Your task to perform on an android device: toggle improve location accuracy Image 0: 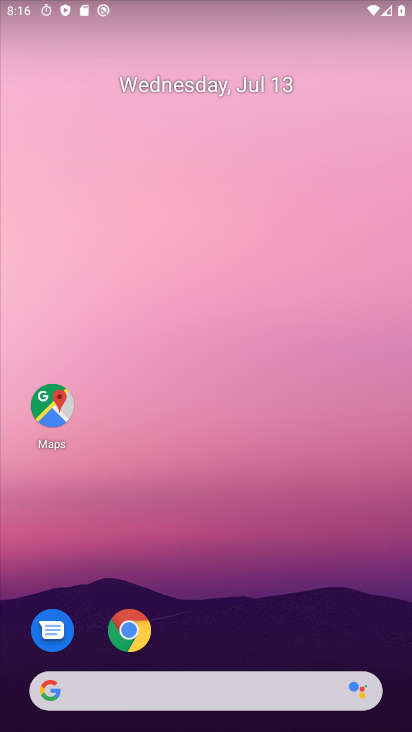
Step 0: drag from (176, 642) to (233, 135)
Your task to perform on an android device: toggle improve location accuracy Image 1: 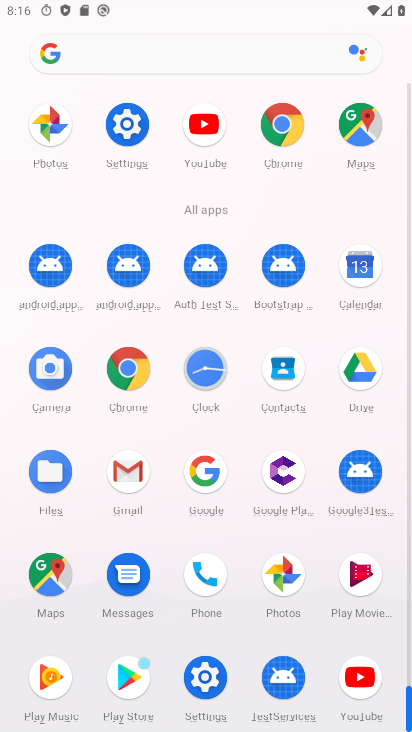
Step 1: click (208, 678)
Your task to perform on an android device: toggle improve location accuracy Image 2: 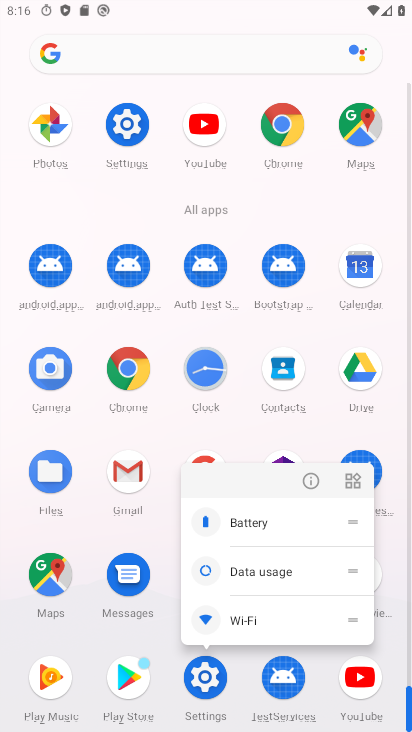
Step 2: click (311, 479)
Your task to perform on an android device: toggle improve location accuracy Image 3: 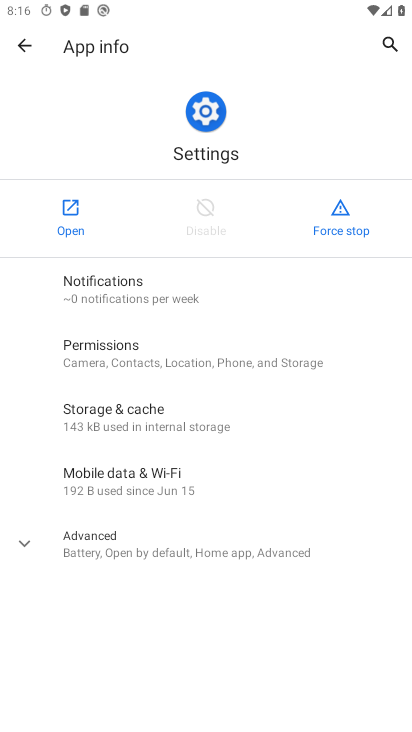
Step 3: click (66, 209)
Your task to perform on an android device: toggle improve location accuracy Image 4: 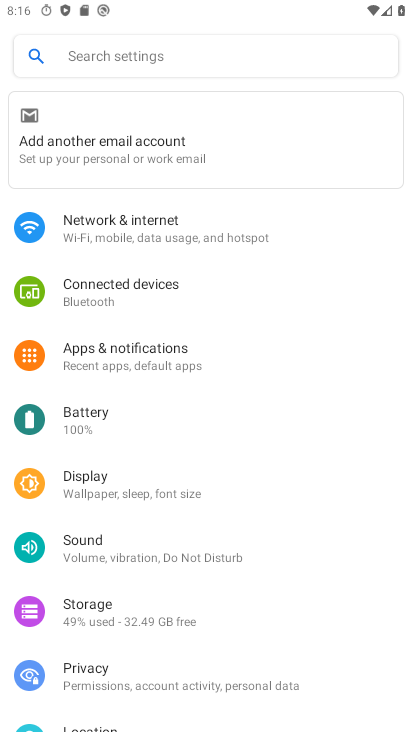
Step 4: drag from (179, 664) to (249, 348)
Your task to perform on an android device: toggle improve location accuracy Image 5: 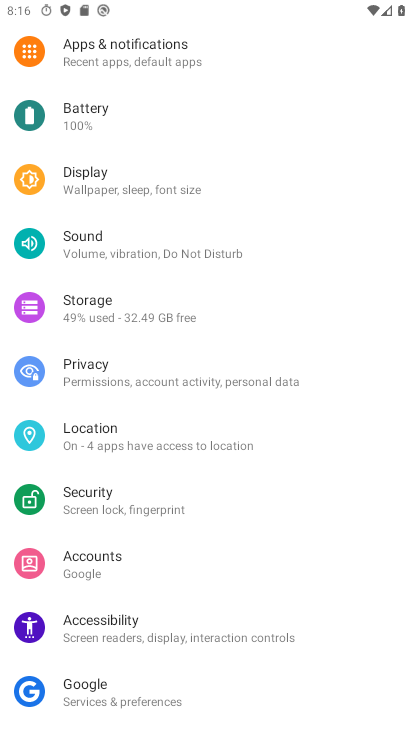
Step 5: click (115, 432)
Your task to perform on an android device: toggle improve location accuracy Image 6: 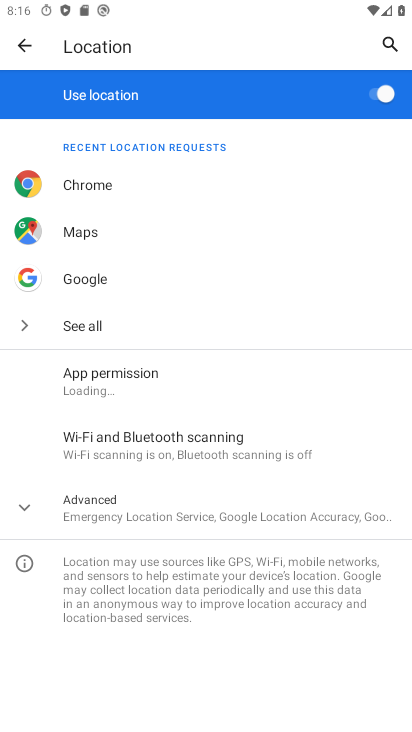
Step 6: drag from (238, 495) to (303, 138)
Your task to perform on an android device: toggle improve location accuracy Image 7: 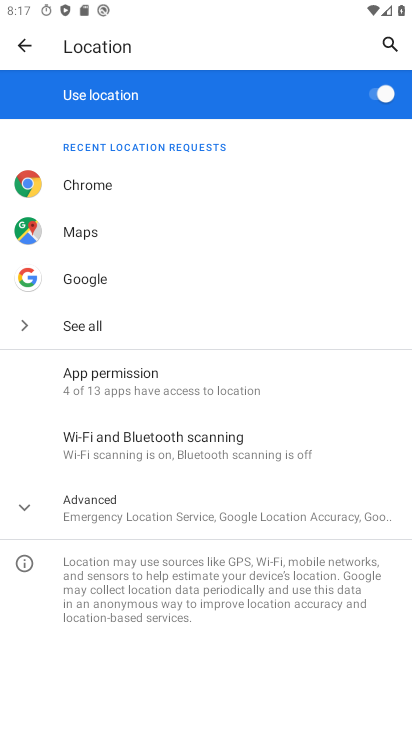
Step 7: click (104, 507)
Your task to perform on an android device: toggle improve location accuracy Image 8: 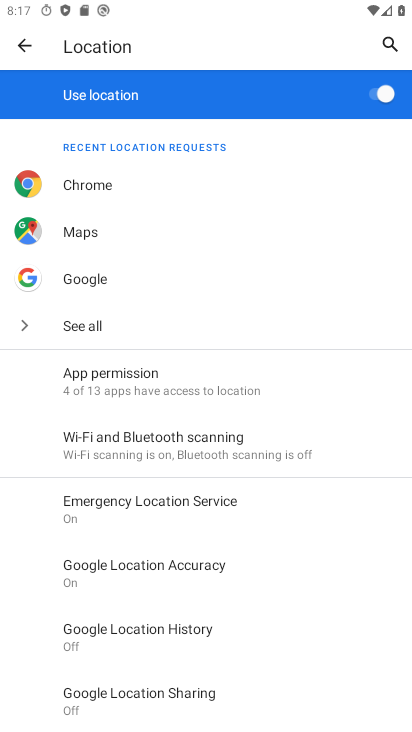
Step 8: click (159, 564)
Your task to perform on an android device: toggle improve location accuracy Image 9: 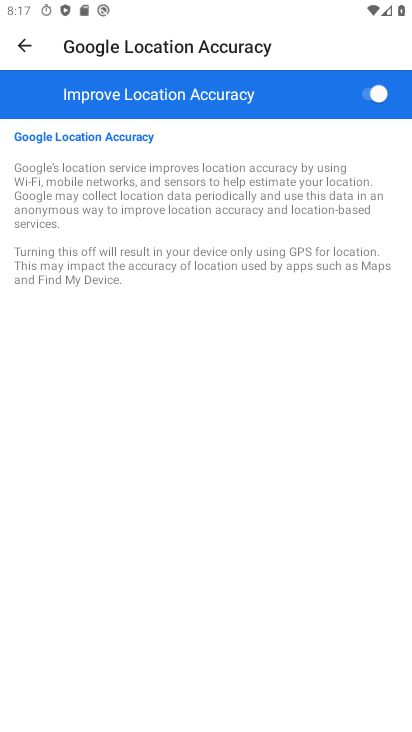
Step 9: click (370, 102)
Your task to perform on an android device: toggle improve location accuracy Image 10: 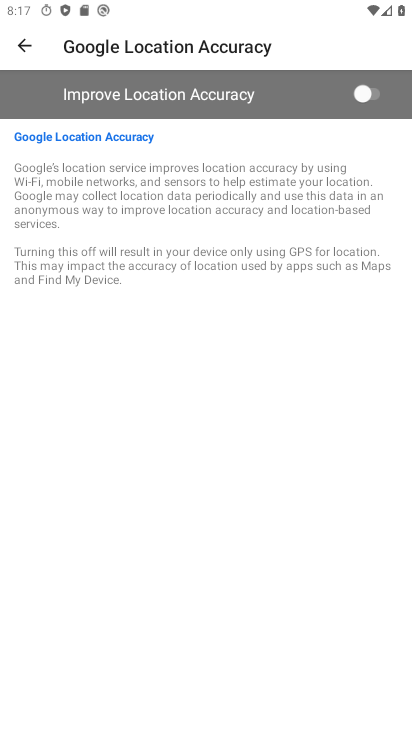
Step 10: task complete